Your task to perform on an android device: open app "Upside-Cash back on gas & food" (install if not already installed) and go to login screen Image 0: 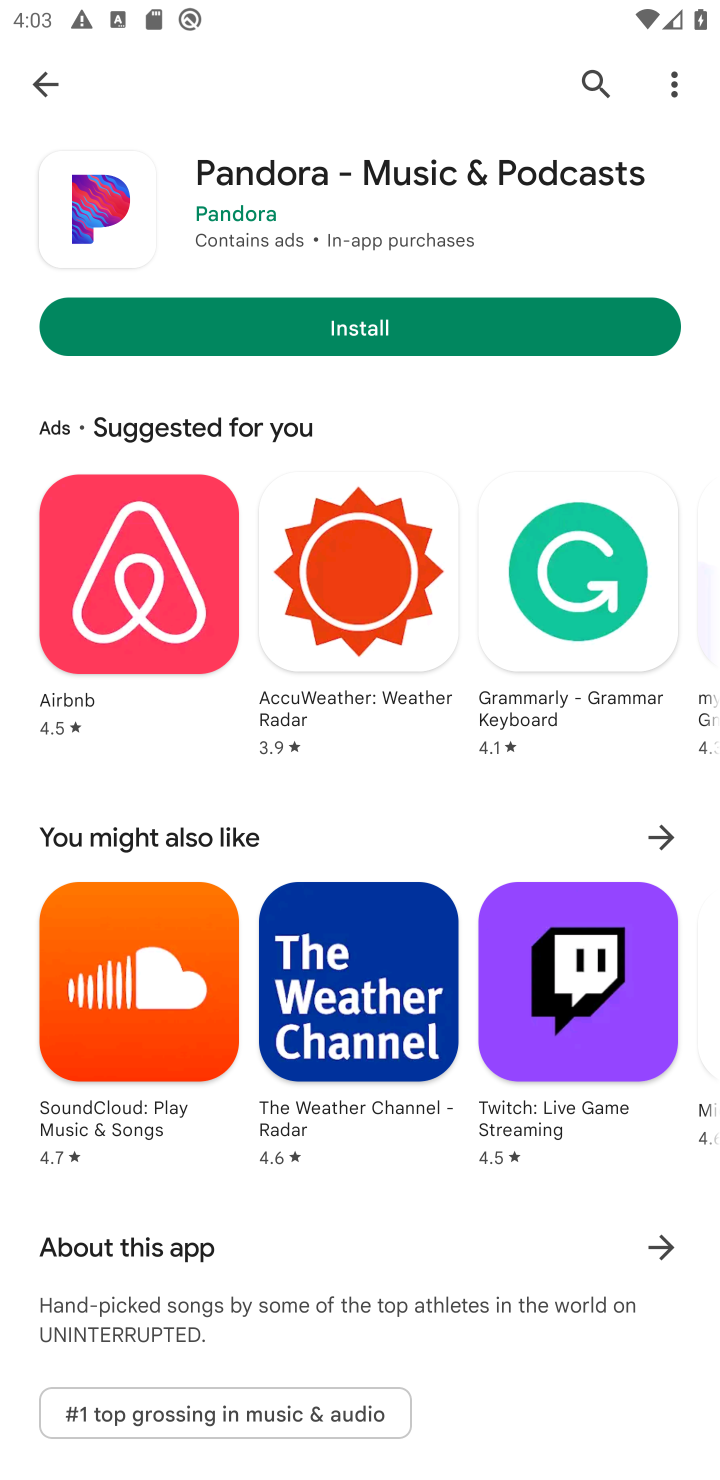
Step 0: click (230, 337)
Your task to perform on an android device: open app "Upside-Cash back on gas & food" (install if not already installed) and go to login screen Image 1: 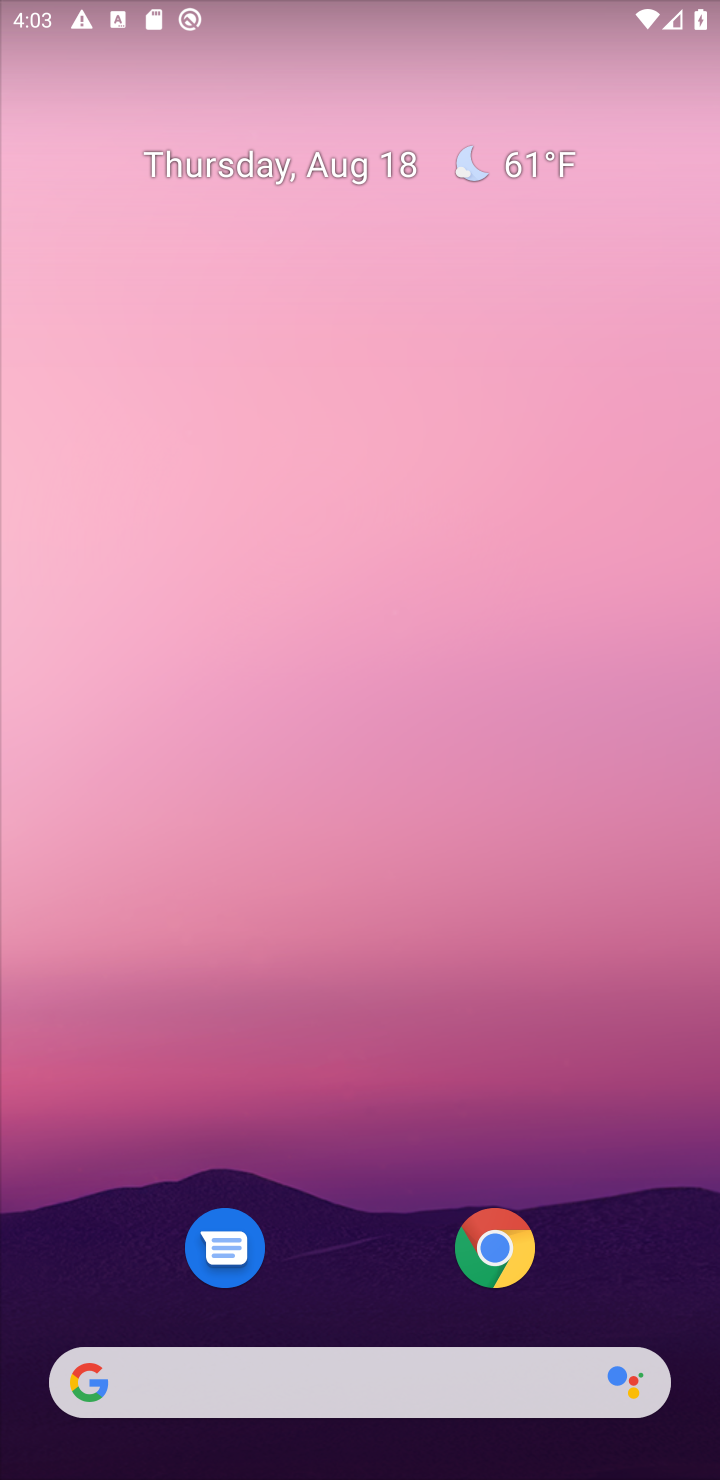
Step 1: drag from (306, 1037) to (348, 16)
Your task to perform on an android device: open app "Upside-Cash back on gas & food" (install if not already installed) and go to login screen Image 2: 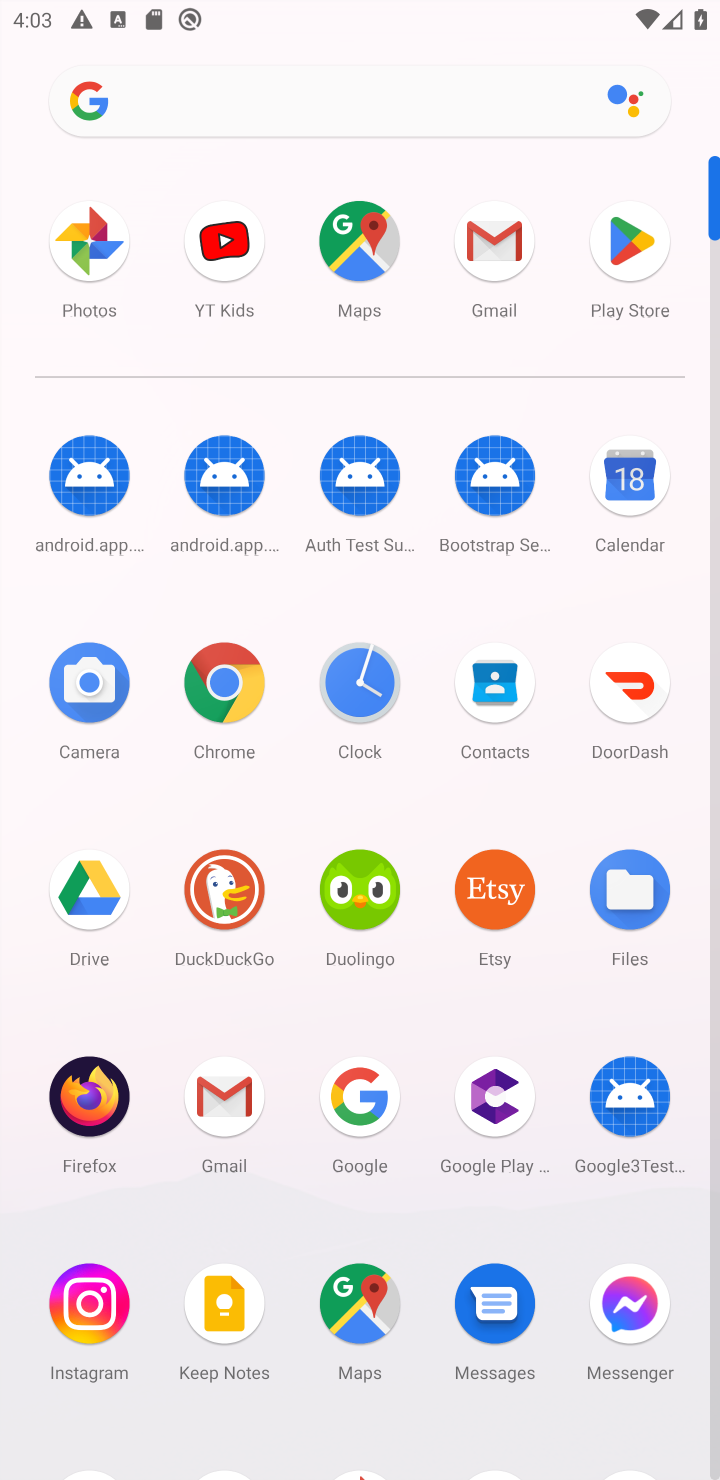
Step 2: click (615, 237)
Your task to perform on an android device: open app "Upside-Cash back on gas & food" (install if not already installed) and go to login screen Image 3: 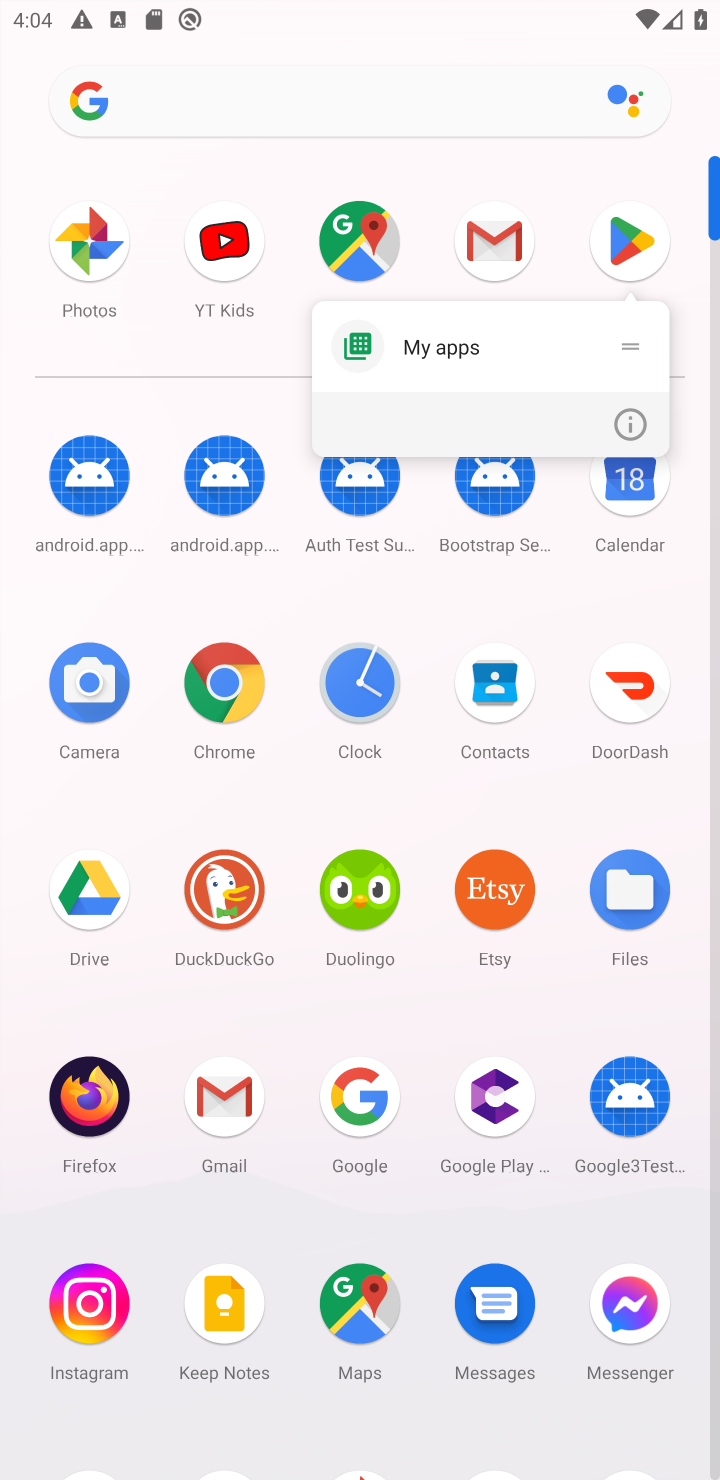
Step 3: click (605, 228)
Your task to perform on an android device: open app "Upside-Cash back on gas & food" (install if not already installed) and go to login screen Image 4: 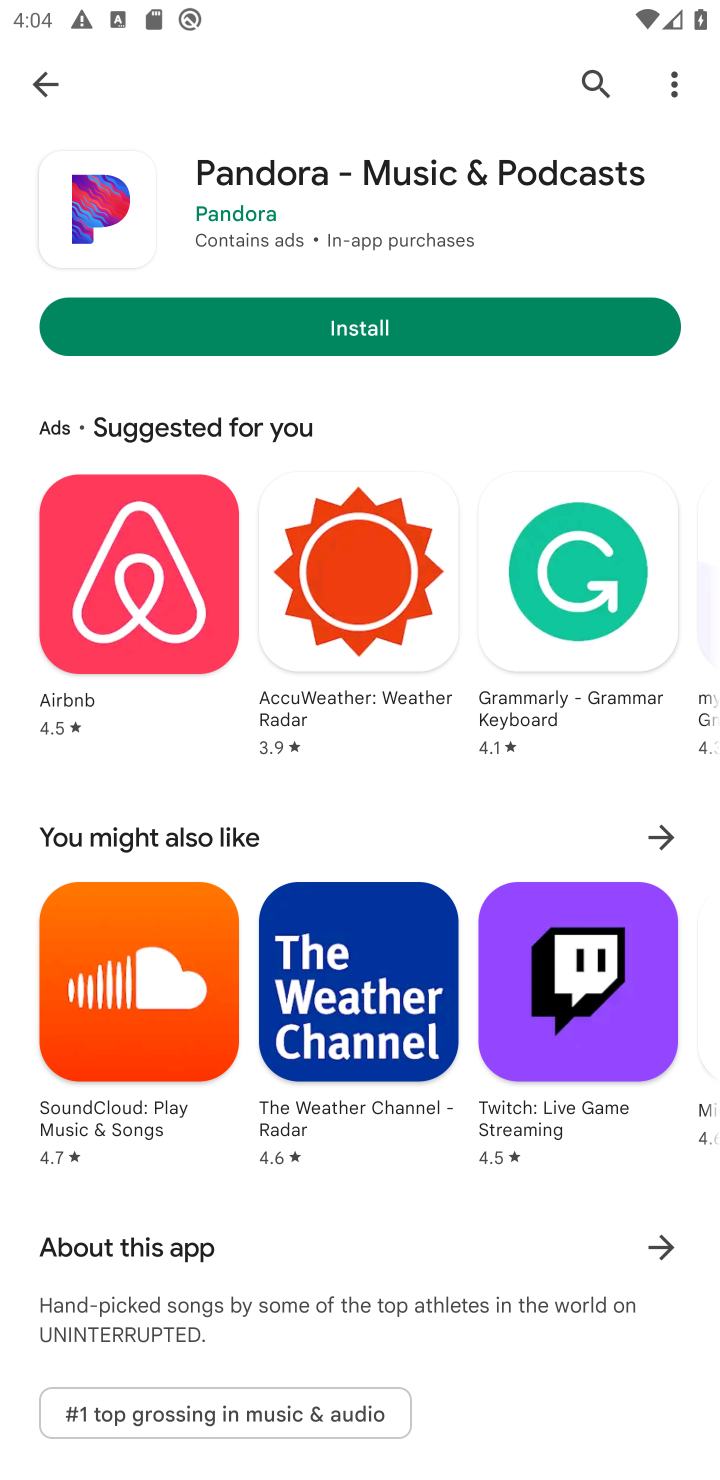
Step 4: click (591, 67)
Your task to perform on an android device: open app "Upside-Cash back on gas & food" (install if not already installed) and go to login screen Image 5: 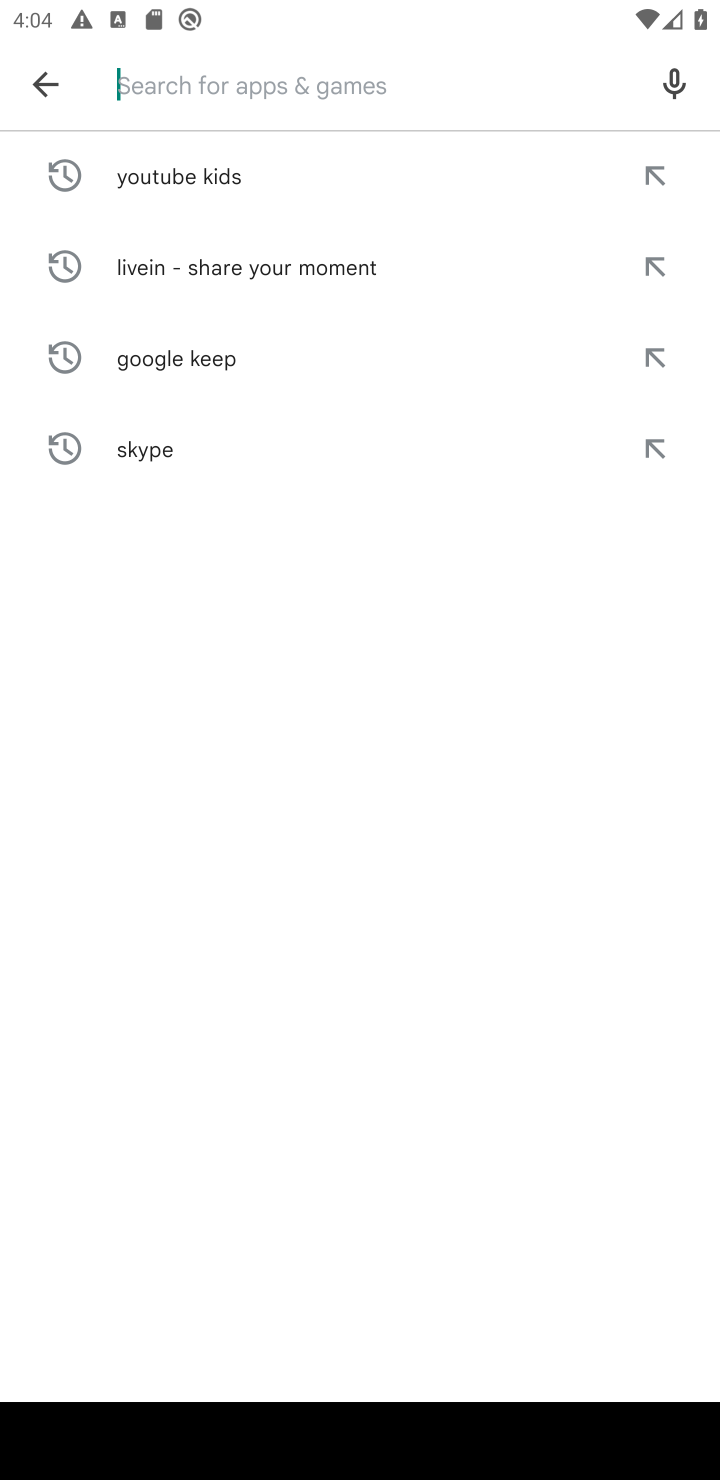
Step 5: type "Upside-Cash back on gas & food"
Your task to perform on an android device: open app "Upside-Cash back on gas & food" (install if not already installed) and go to login screen Image 6: 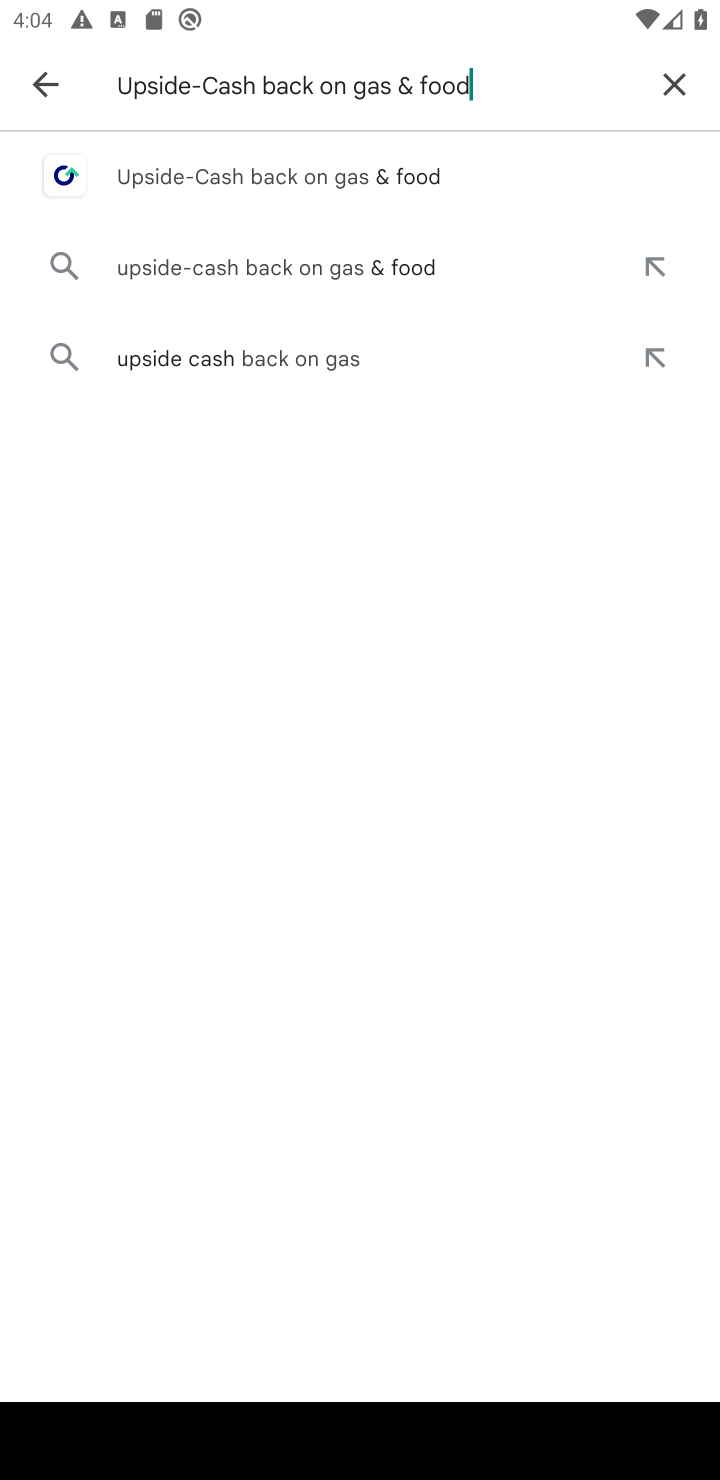
Step 6: type ""
Your task to perform on an android device: open app "Upside-Cash back on gas & food" (install if not already installed) and go to login screen Image 7: 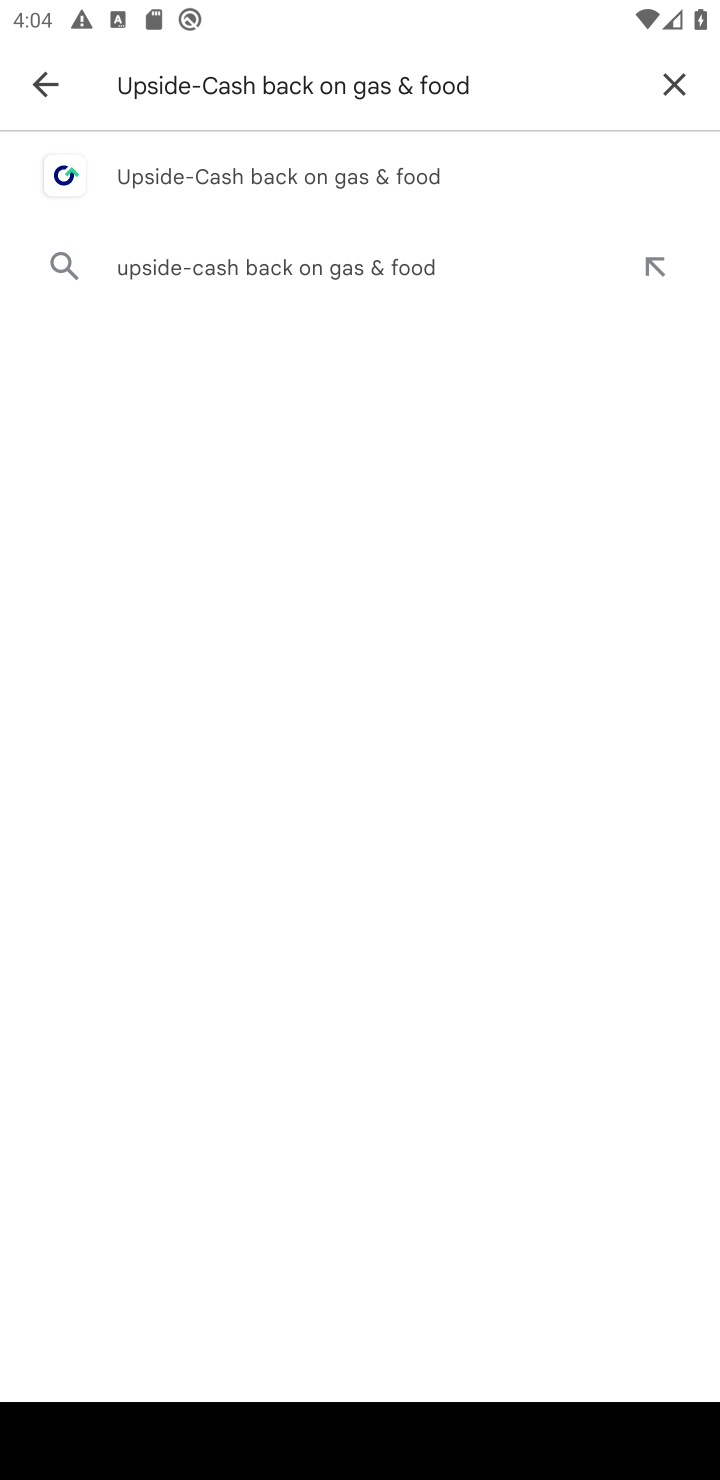
Step 7: click (364, 187)
Your task to perform on an android device: open app "Upside-Cash back on gas & food" (install if not already installed) and go to login screen Image 8: 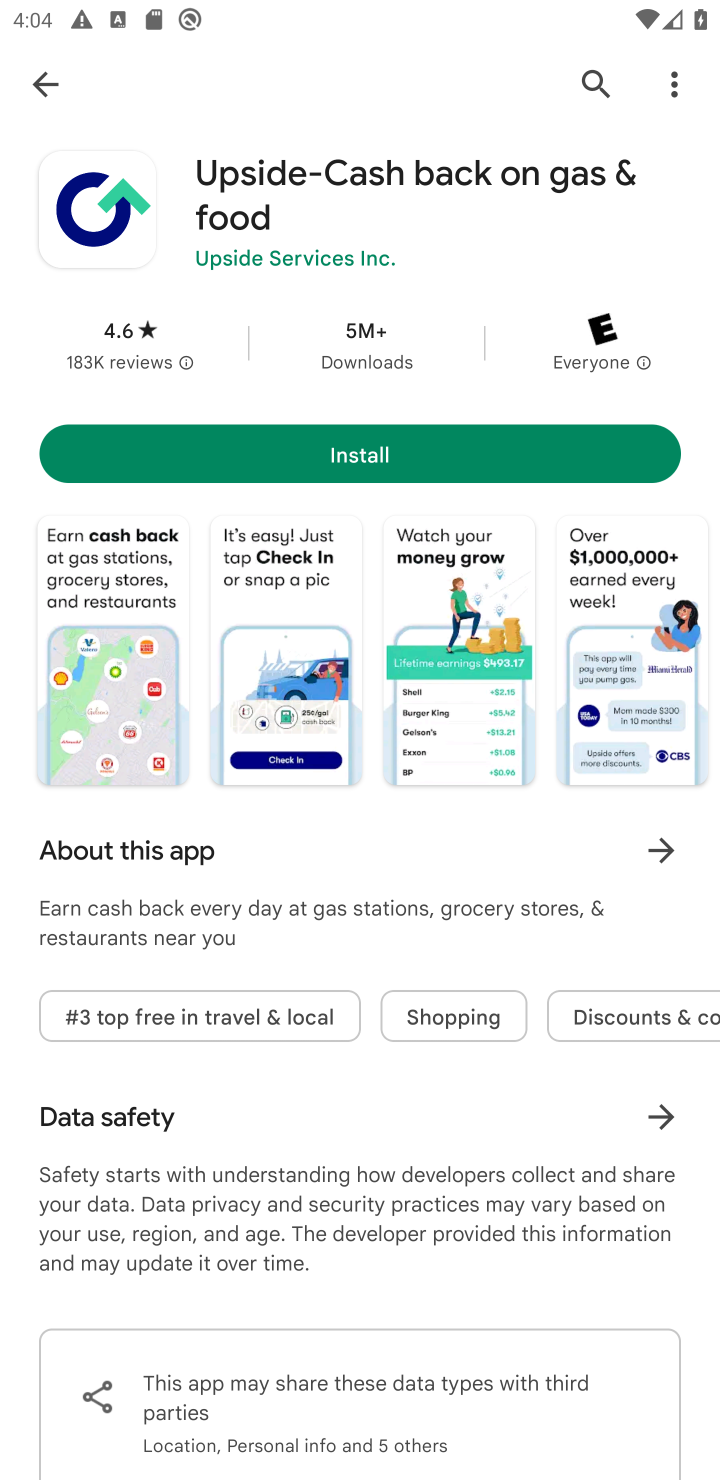
Step 8: click (344, 458)
Your task to perform on an android device: open app "Upside-Cash back on gas & food" (install if not already installed) and go to login screen Image 9: 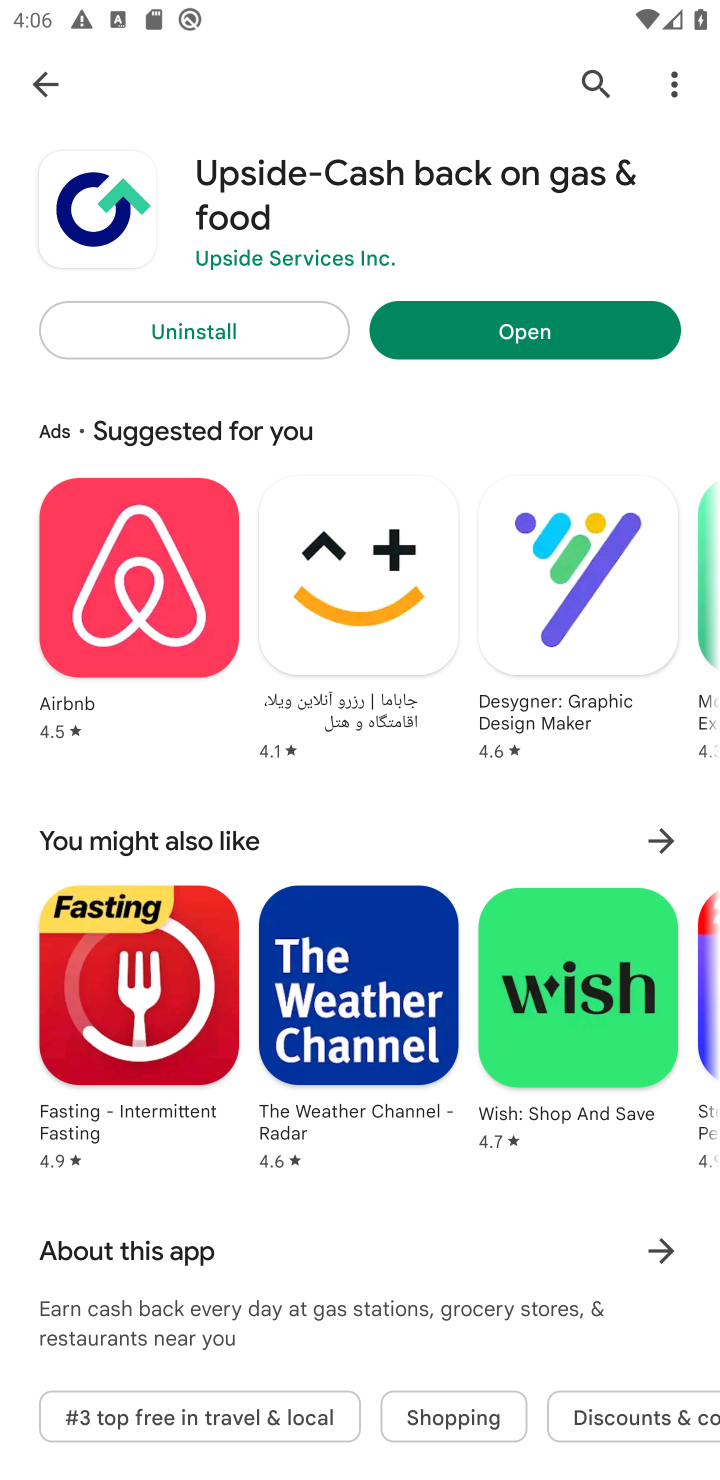
Step 9: click (575, 345)
Your task to perform on an android device: open app "Upside-Cash back on gas & food" (install if not already installed) and go to login screen Image 10: 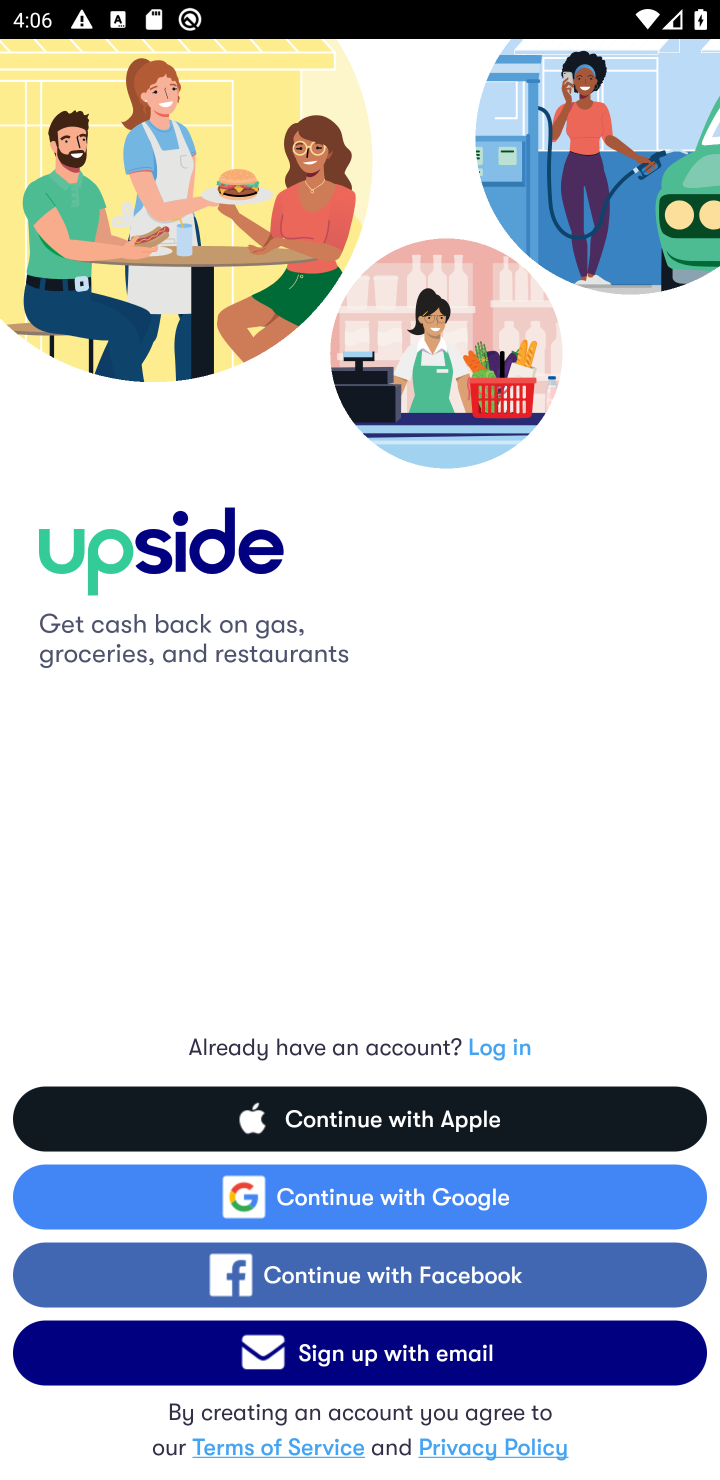
Step 10: task complete